Your task to perform on an android device: Add logitech g pro to the cart on target.com, then select checkout. Image 0: 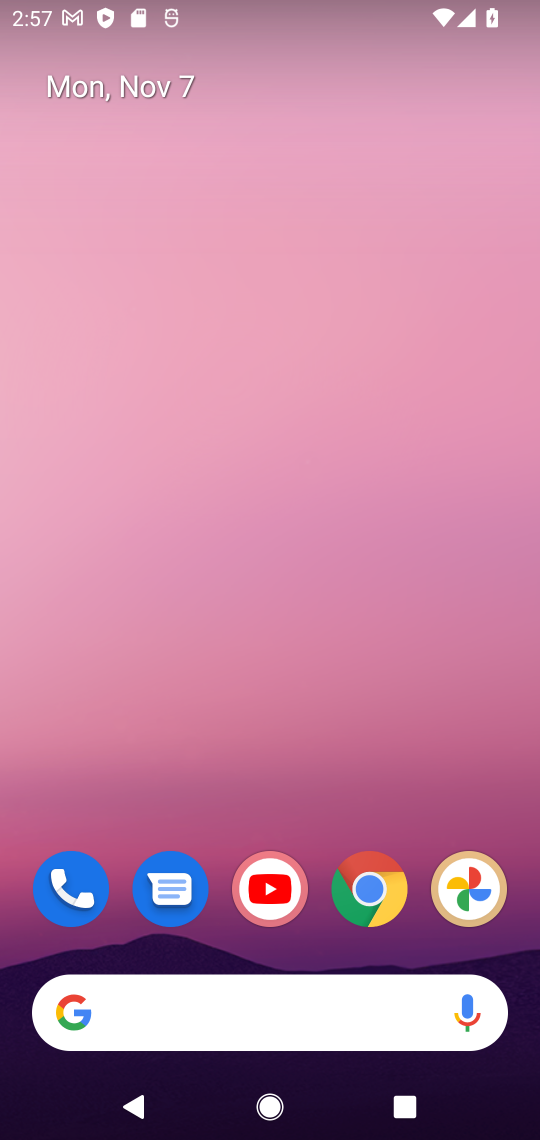
Step 0: click (387, 895)
Your task to perform on an android device: Add logitech g pro to the cart on target.com, then select checkout. Image 1: 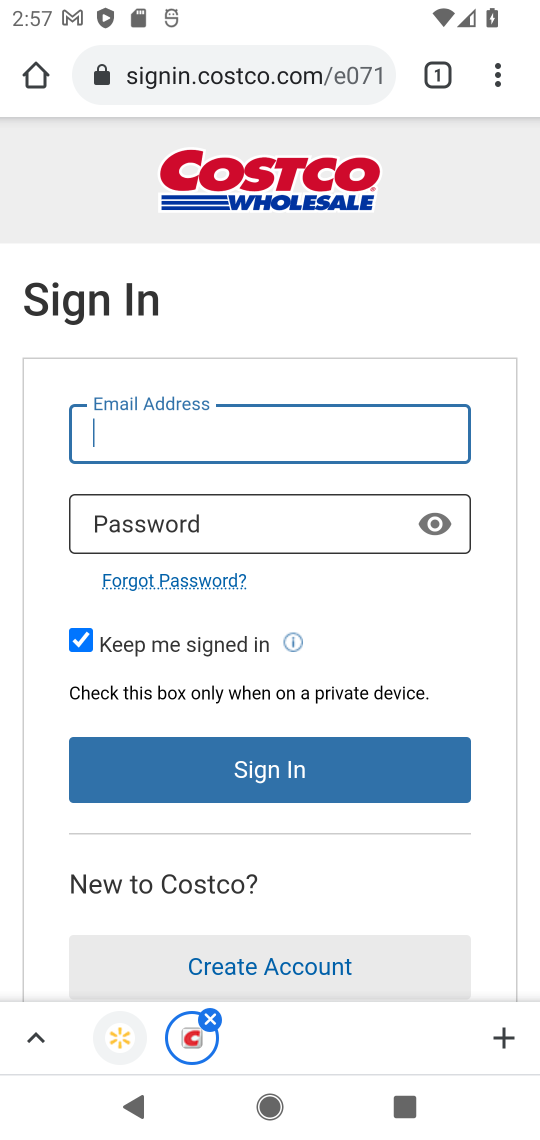
Step 1: click (276, 67)
Your task to perform on an android device: Add logitech g pro to the cart on target.com, then select checkout. Image 2: 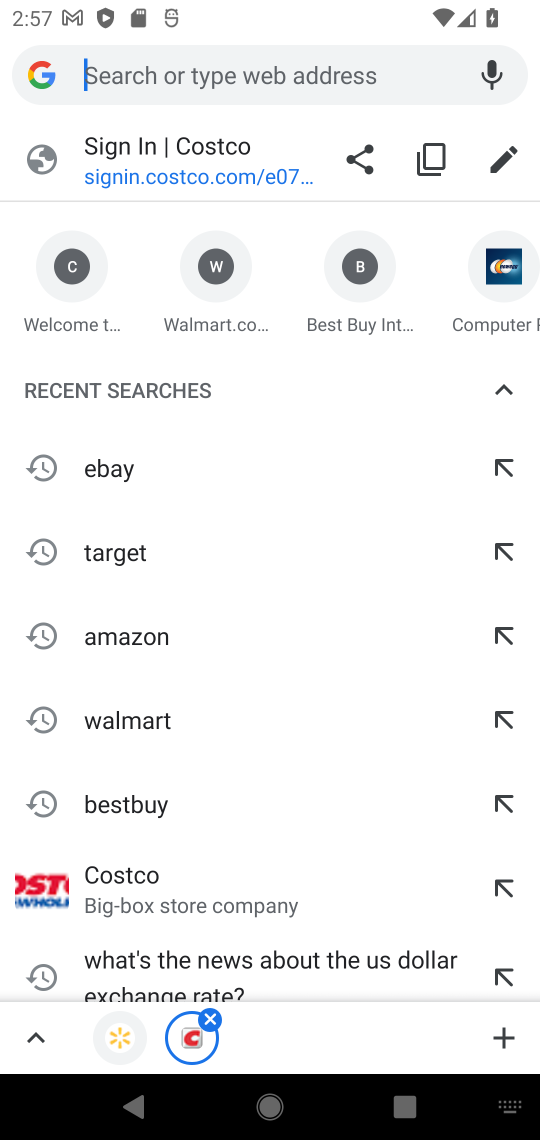
Step 2: type "target.com"
Your task to perform on an android device: Add logitech g pro to the cart on target.com, then select checkout. Image 3: 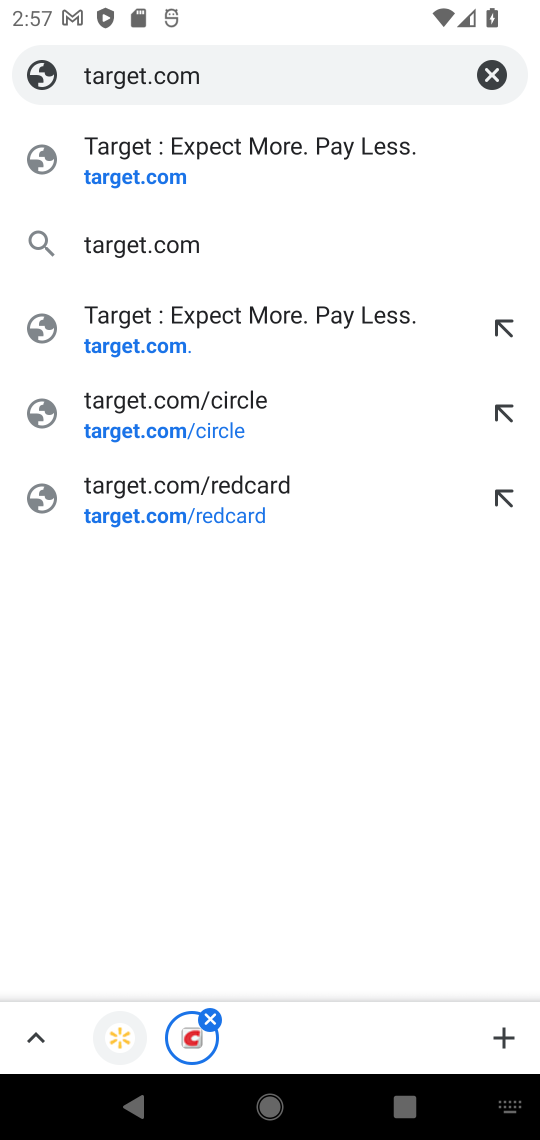
Step 3: click (206, 169)
Your task to perform on an android device: Add logitech g pro to the cart on target.com, then select checkout. Image 4: 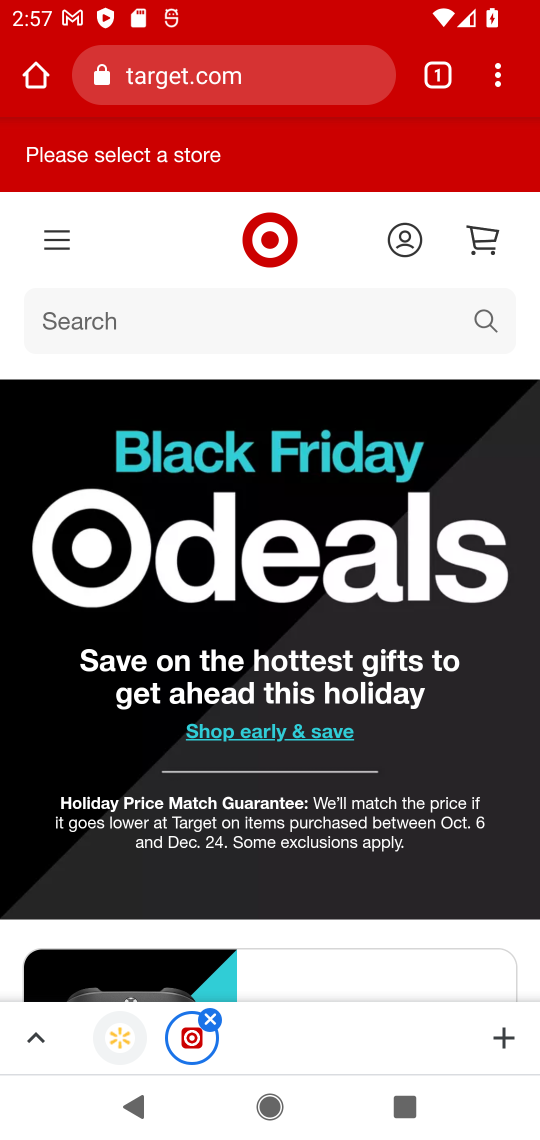
Step 4: click (272, 323)
Your task to perform on an android device: Add logitech g pro to the cart on target.com, then select checkout. Image 5: 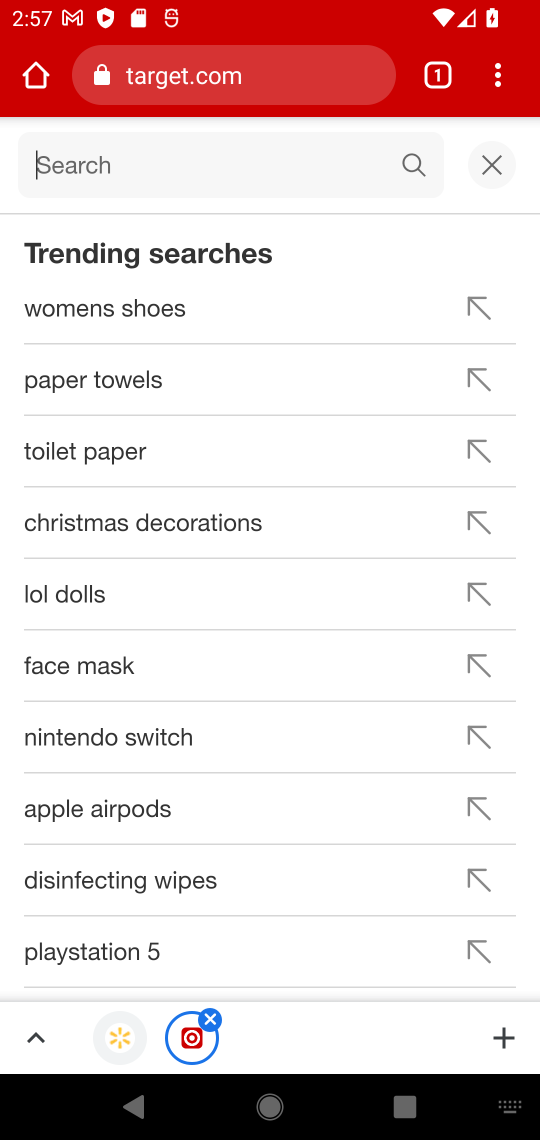
Step 5: type "logitech g pro"
Your task to perform on an android device: Add logitech g pro to the cart on target.com, then select checkout. Image 6: 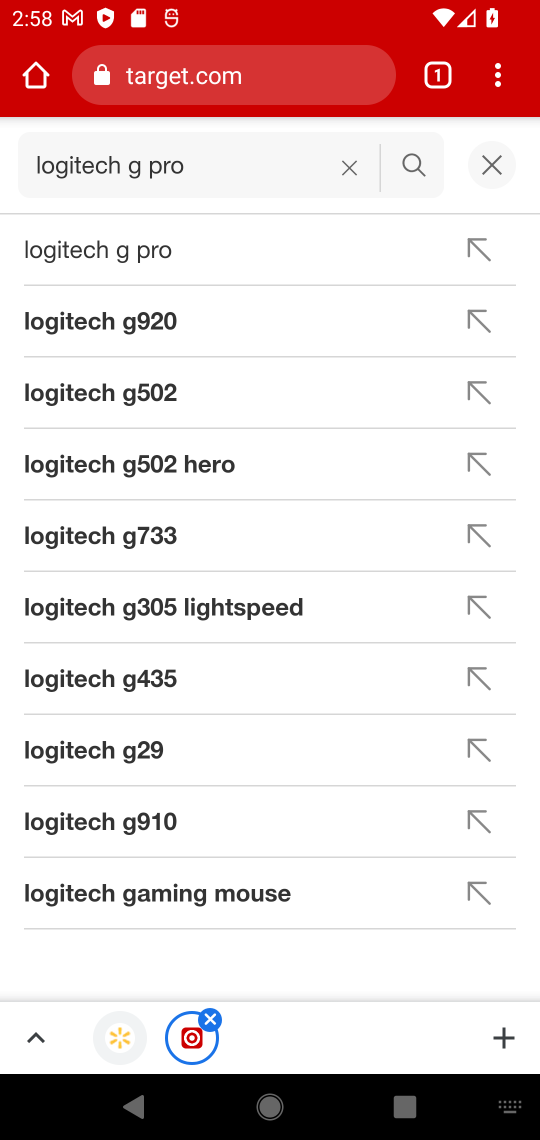
Step 6: click (169, 252)
Your task to perform on an android device: Add logitech g pro to the cart on target.com, then select checkout. Image 7: 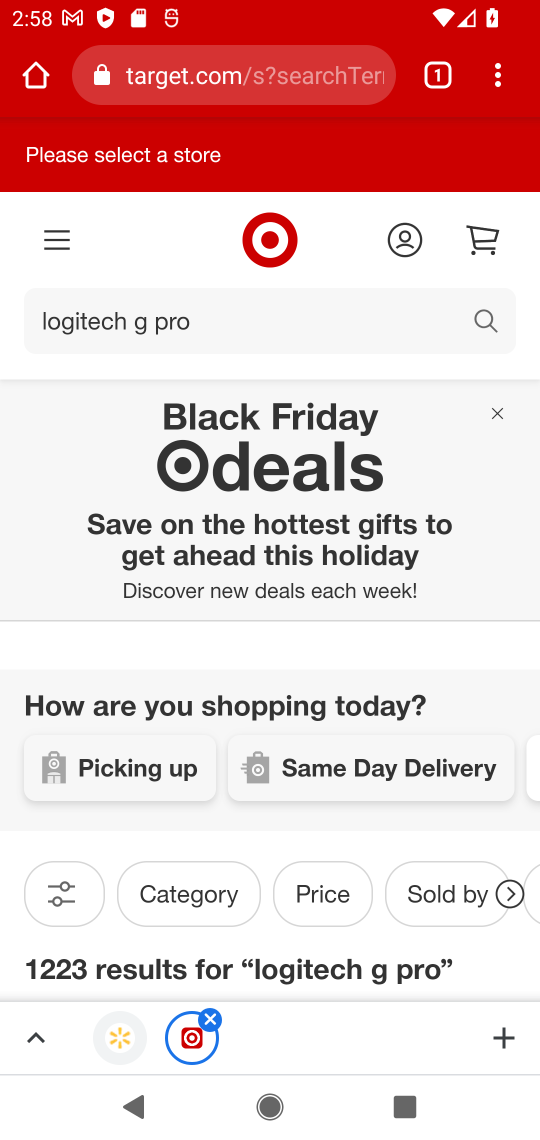
Step 7: drag from (336, 835) to (207, 416)
Your task to perform on an android device: Add logitech g pro to the cart on target.com, then select checkout. Image 8: 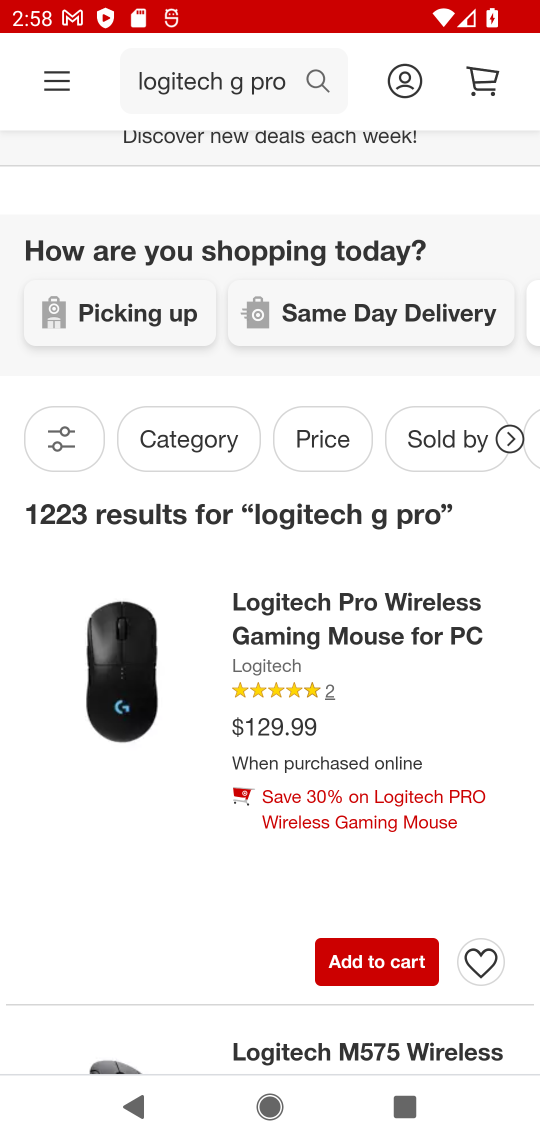
Step 8: click (149, 735)
Your task to perform on an android device: Add logitech g pro to the cart on target.com, then select checkout. Image 9: 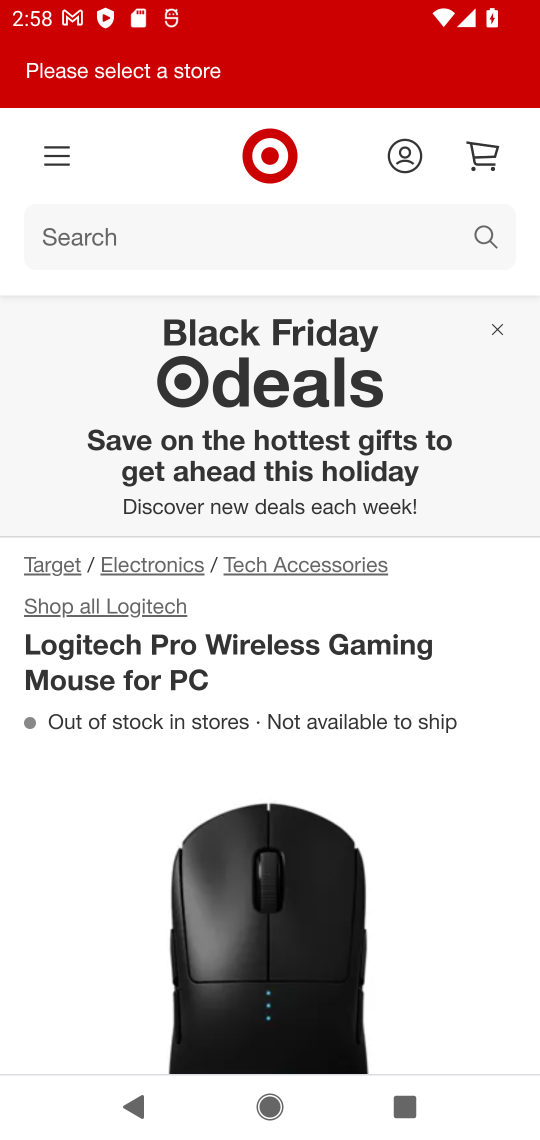
Step 9: drag from (423, 928) to (363, 414)
Your task to perform on an android device: Add logitech g pro to the cart on target.com, then select checkout. Image 10: 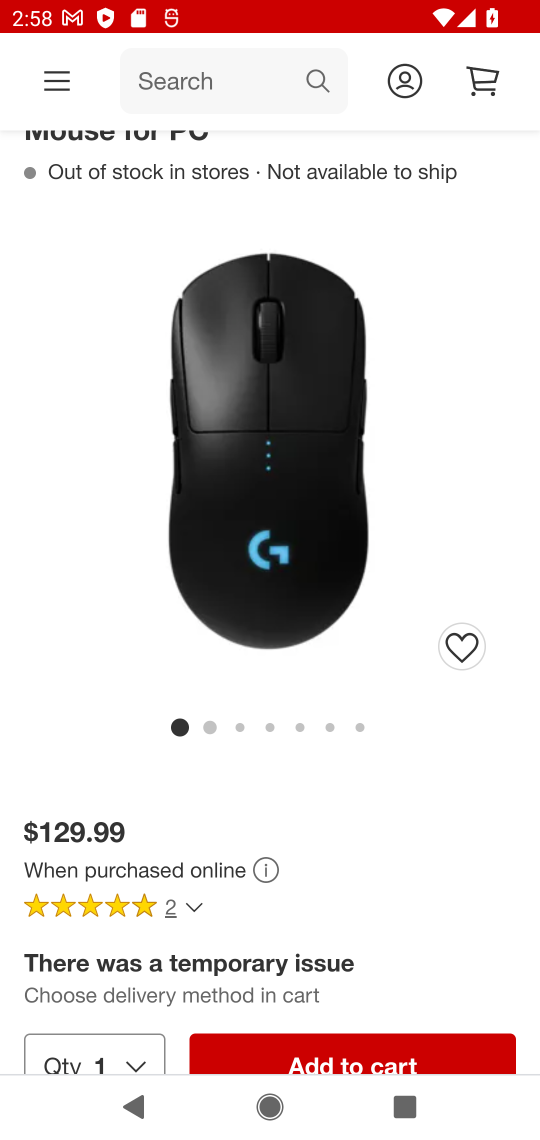
Step 10: click (409, 1043)
Your task to perform on an android device: Add logitech g pro to the cart on target.com, then select checkout. Image 11: 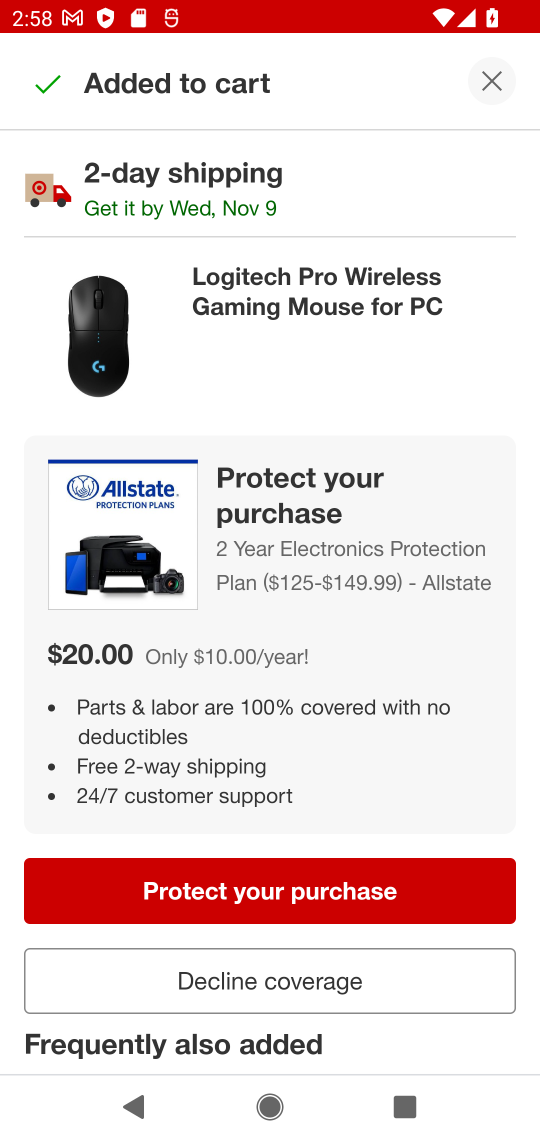
Step 11: click (492, 84)
Your task to perform on an android device: Add logitech g pro to the cart on target.com, then select checkout. Image 12: 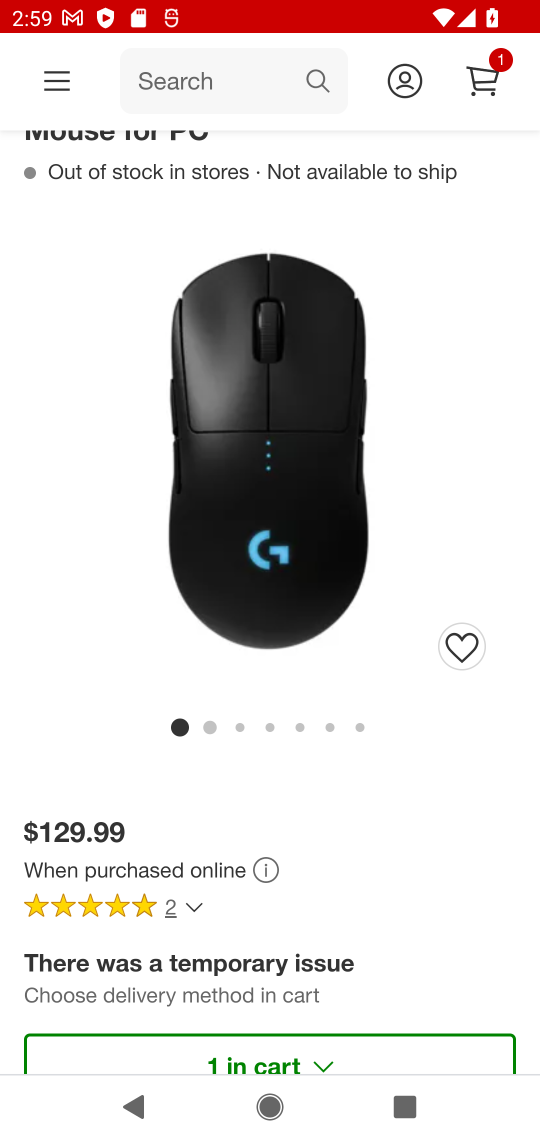
Step 12: click (496, 79)
Your task to perform on an android device: Add logitech g pro to the cart on target.com, then select checkout. Image 13: 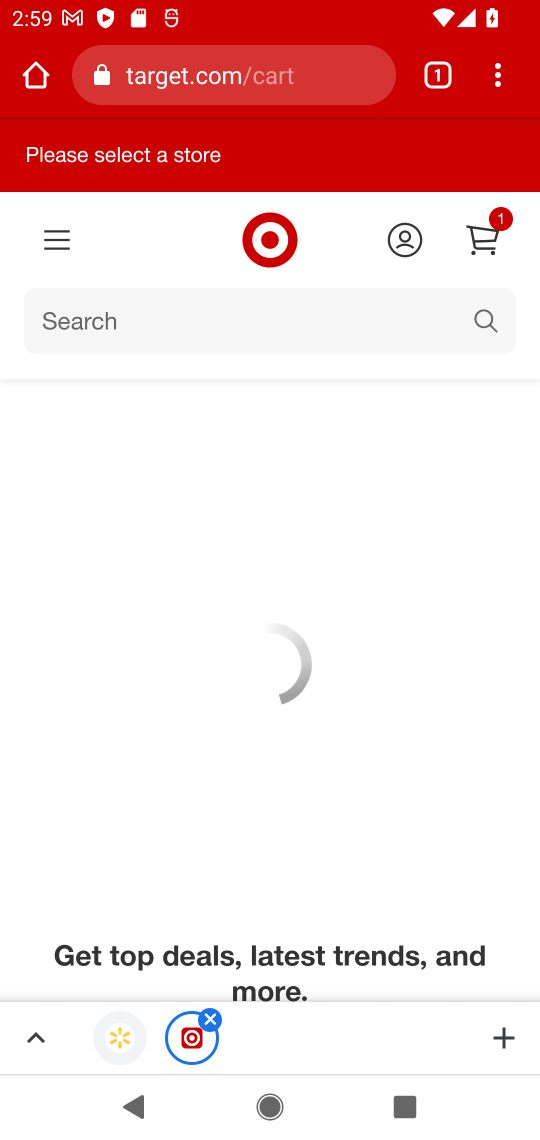
Step 13: drag from (390, 967) to (362, 419)
Your task to perform on an android device: Add logitech g pro to the cart on target.com, then select checkout. Image 14: 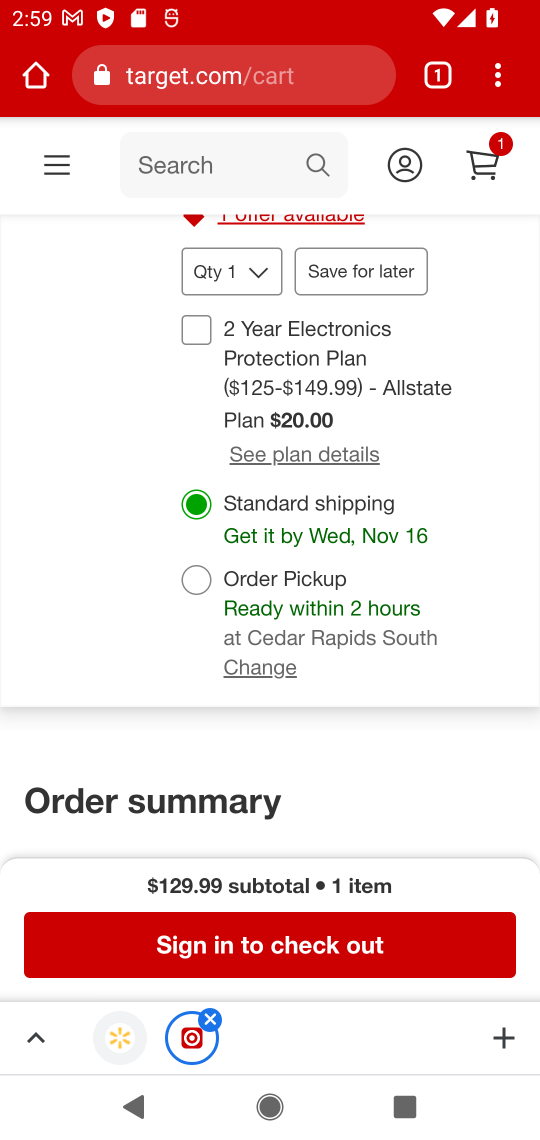
Step 14: click (312, 973)
Your task to perform on an android device: Add logitech g pro to the cart on target.com, then select checkout. Image 15: 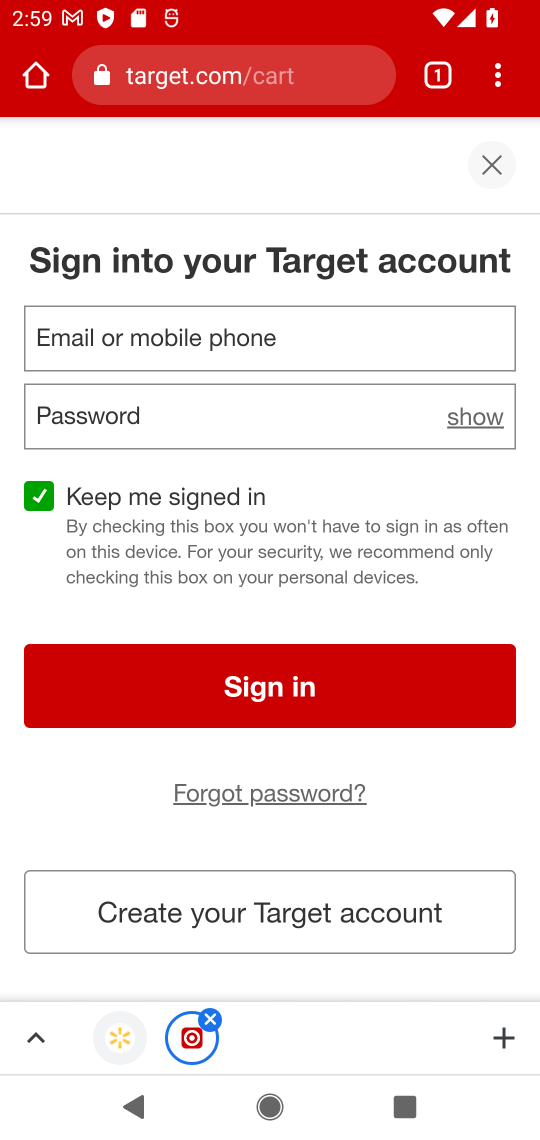
Step 15: task complete